Your task to perform on an android device: turn off priority inbox in the gmail app Image 0: 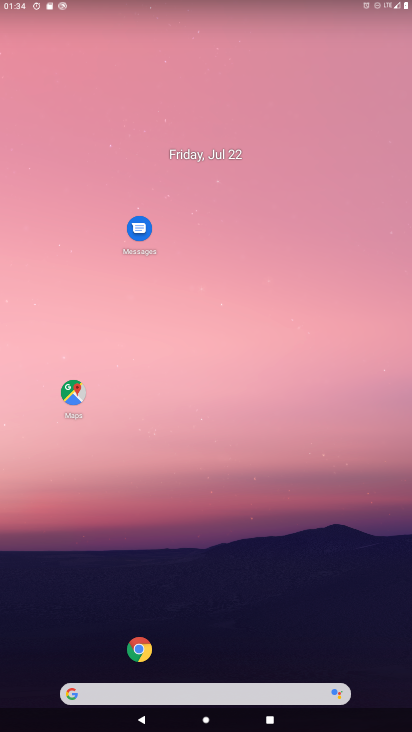
Step 0: drag from (23, 701) to (197, 125)
Your task to perform on an android device: turn off priority inbox in the gmail app Image 1: 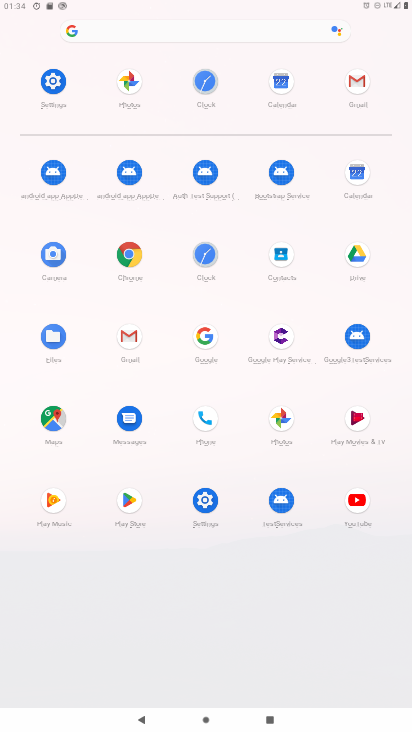
Step 1: click (127, 345)
Your task to perform on an android device: turn off priority inbox in the gmail app Image 2: 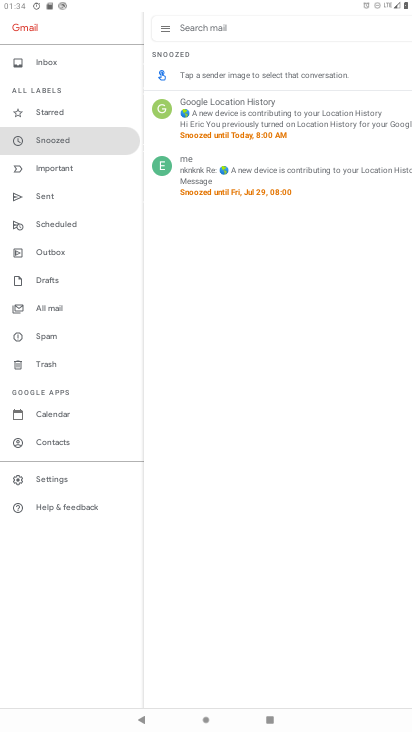
Step 2: click (49, 479)
Your task to perform on an android device: turn off priority inbox in the gmail app Image 3: 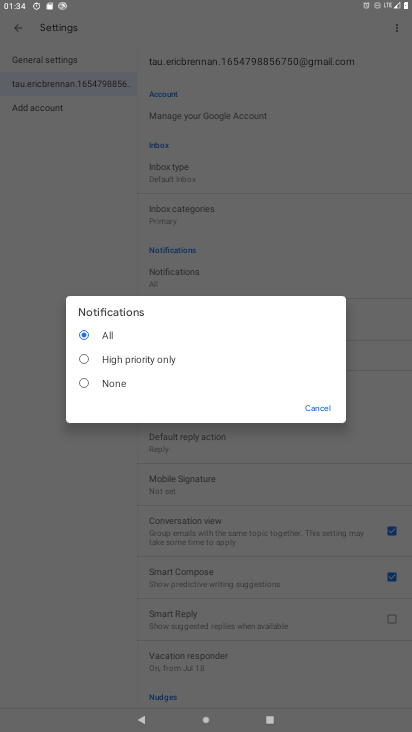
Step 3: click (323, 408)
Your task to perform on an android device: turn off priority inbox in the gmail app Image 4: 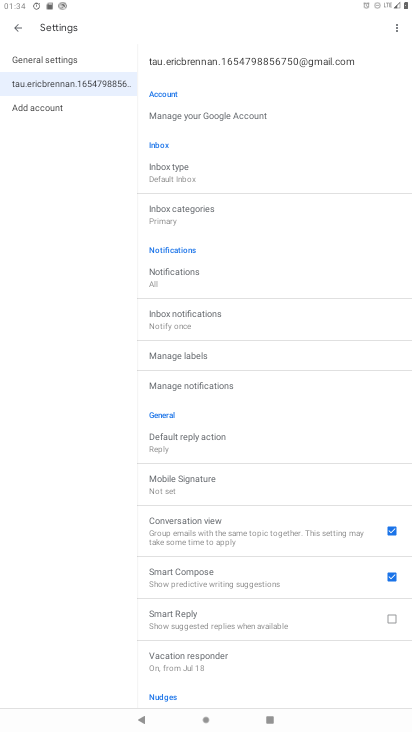
Step 4: click (162, 160)
Your task to perform on an android device: turn off priority inbox in the gmail app Image 5: 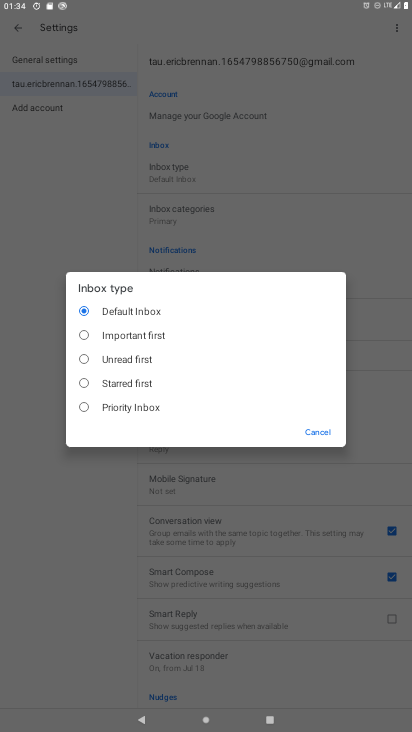
Step 5: click (146, 410)
Your task to perform on an android device: turn off priority inbox in the gmail app Image 6: 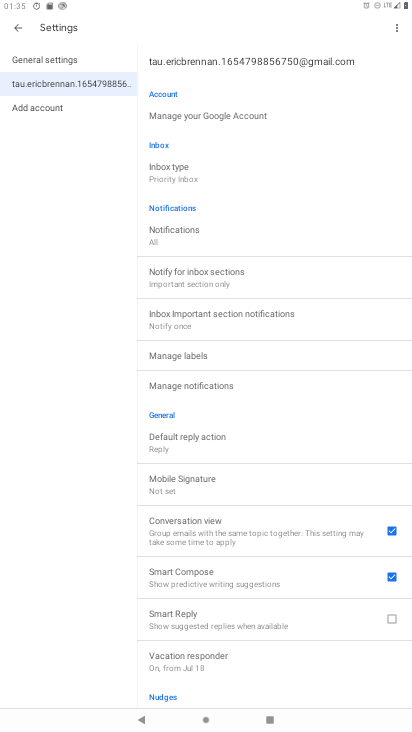
Step 6: task complete